Your task to perform on an android device: snooze an email in the gmail app Image 0: 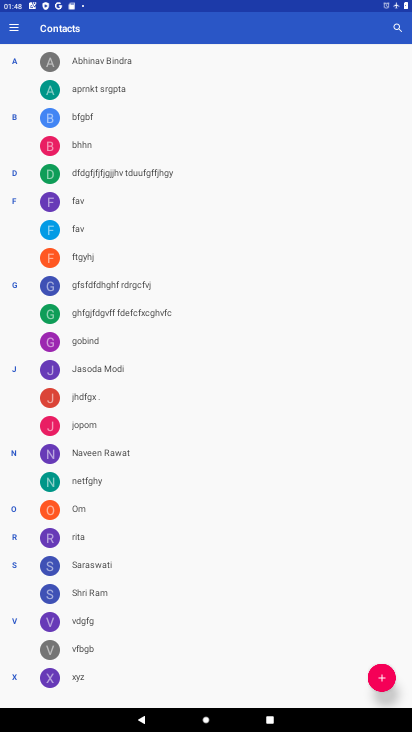
Step 0: press home button
Your task to perform on an android device: snooze an email in the gmail app Image 1: 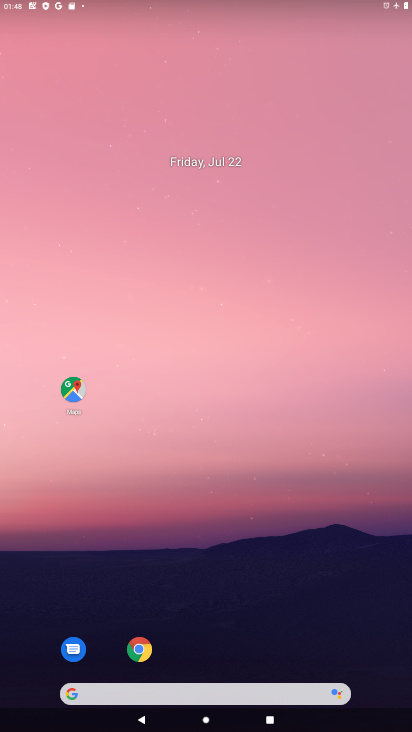
Step 1: drag from (340, 630) to (295, 65)
Your task to perform on an android device: snooze an email in the gmail app Image 2: 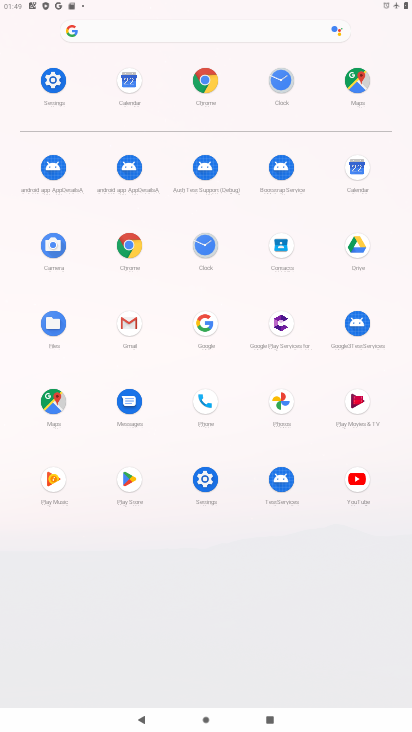
Step 2: click (133, 325)
Your task to perform on an android device: snooze an email in the gmail app Image 3: 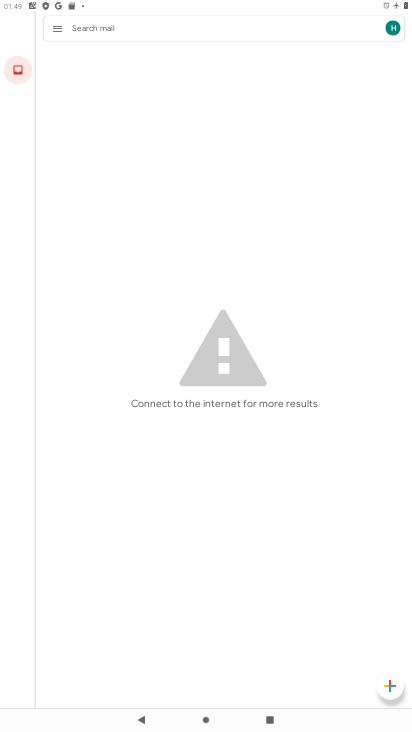
Step 3: click (56, 24)
Your task to perform on an android device: snooze an email in the gmail app Image 4: 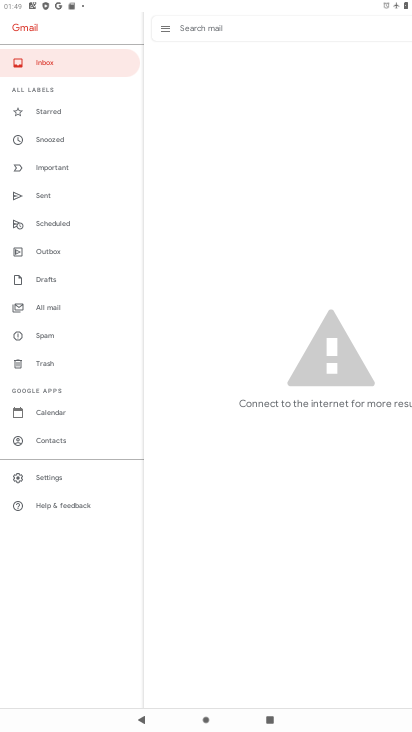
Step 4: click (50, 310)
Your task to perform on an android device: snooze an email in the gmail app Image 5: 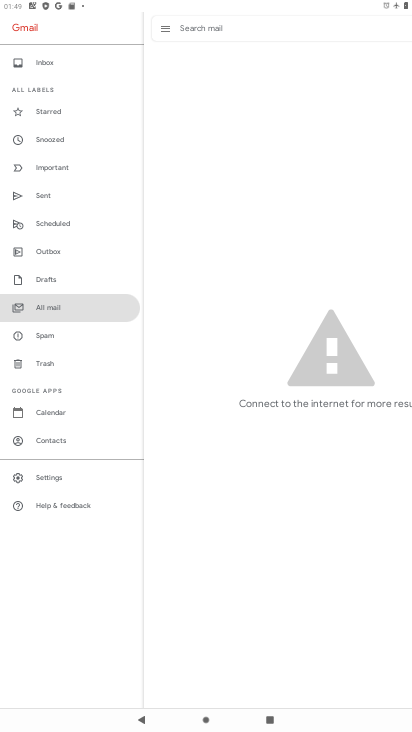
Step 5: task complete